Your task to perform on an android device: Open settings Image 0: 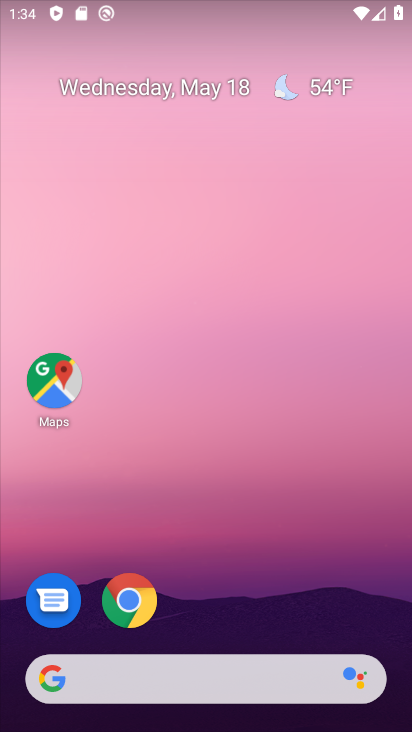
Step 0: drag from (234, 627) to (228, 0)
Your task to perform on an android device: Open settings Image 1: 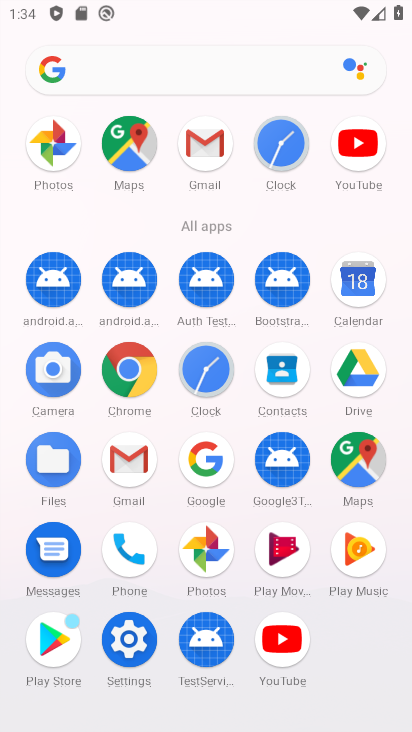
Step 1: click (137, 642)
Your task to perform on an android device: Open settings Image 2: 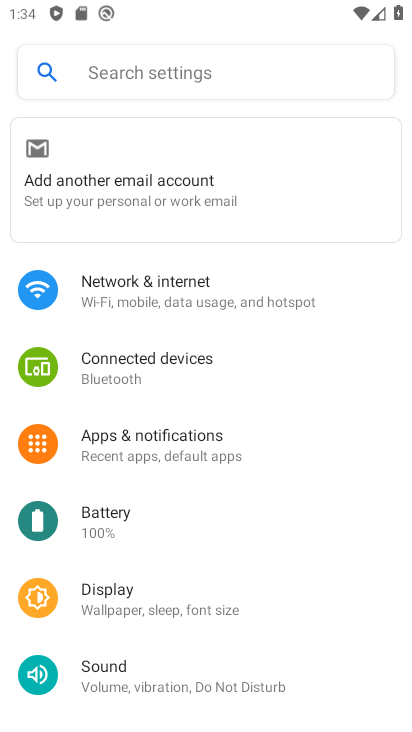
Step 2: task complete